Your task to perform on an android device: change alarm snooze length Image 0: 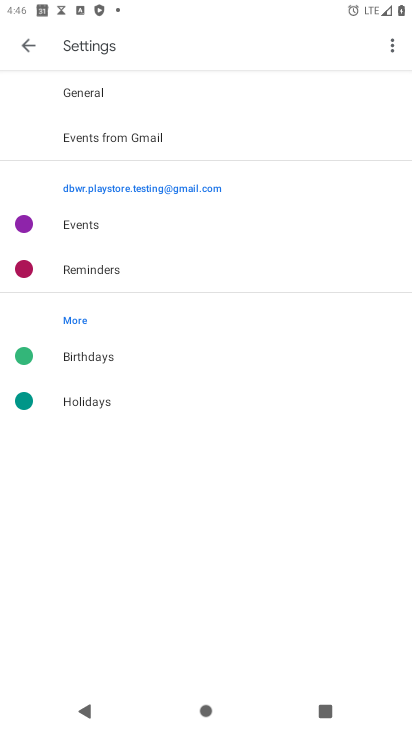
Step 0: press home button
Your task to perform on an android device: change alarm snooze length Image 1: 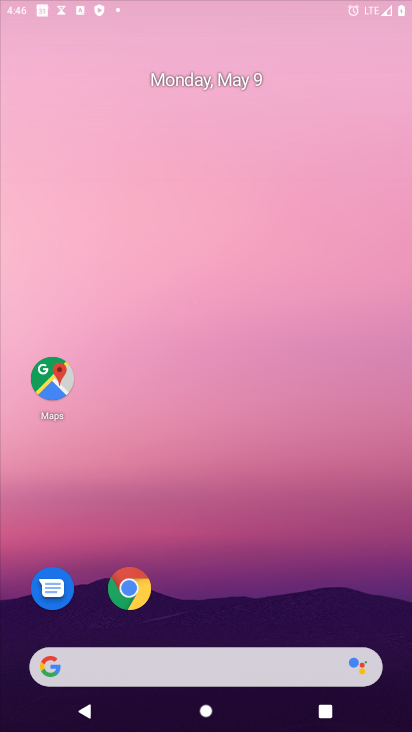
Step 1: drag from (272, 534) to (229, 96)
Your task to perform on an android device: change alarm snooze length Image 2: 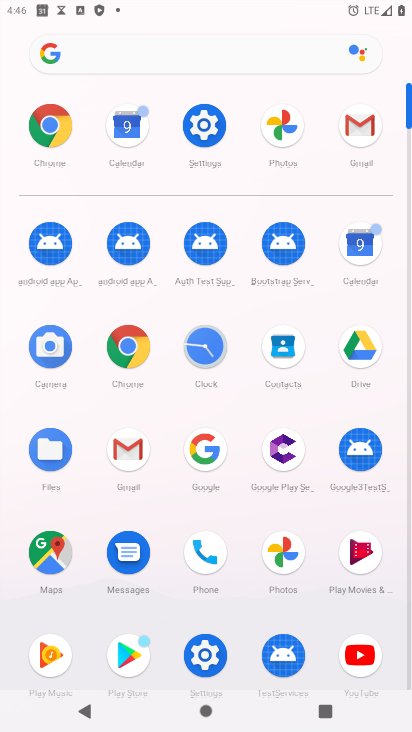
Step 2: click (358, 233)
Your task to perform on an android device: change alarm snooze length Image 3: 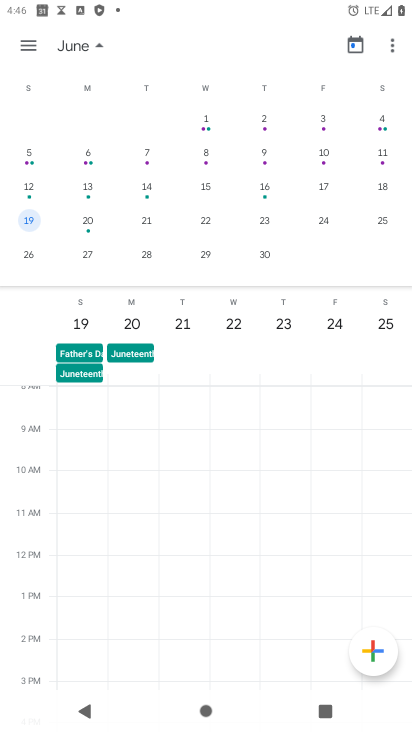
Step 3: press home button
Your task to perform on an android device: change alarm snooze length Image 4: 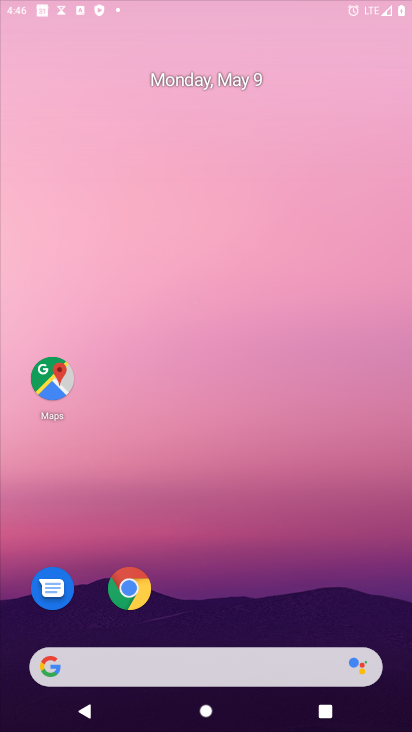
Step 4: drag from (261, 583) to (222, 220)
Your task to perform on an android device: change alarm snooze length Image 5: 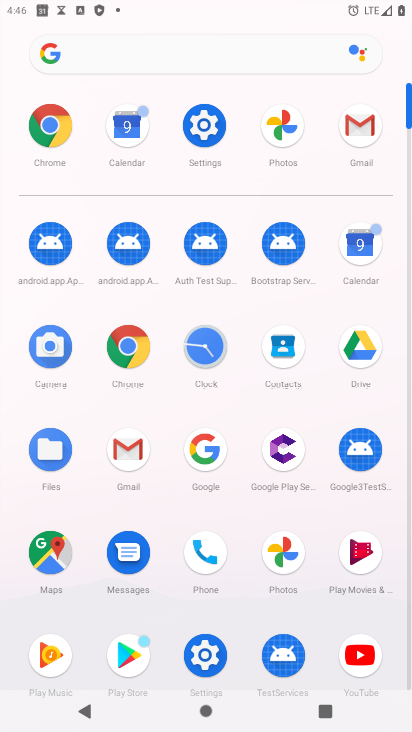
Step 5: click (205, 348)
Your task to perform on an android device: change alarm snooze length Image 6: 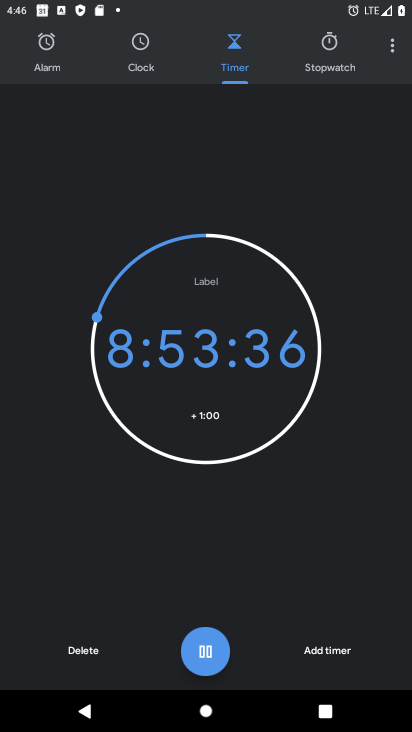
Step 6: click (385, 44)
Your task to perform on an android device: change alarm snooze length Image 7: 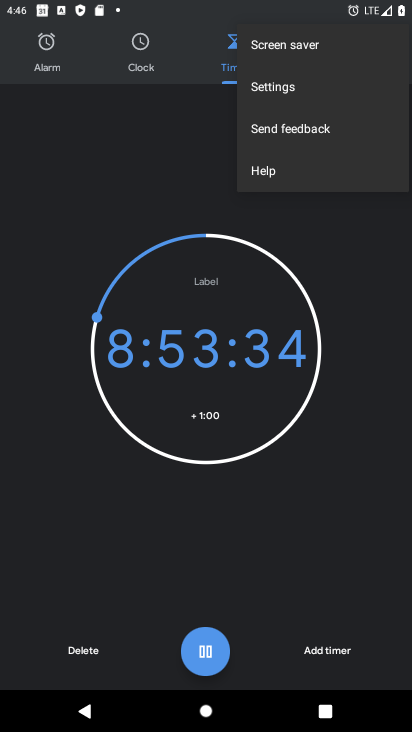
Step 7: click (282, 88)
Your task to perform on an android device: change alarm snooze length Image 8: 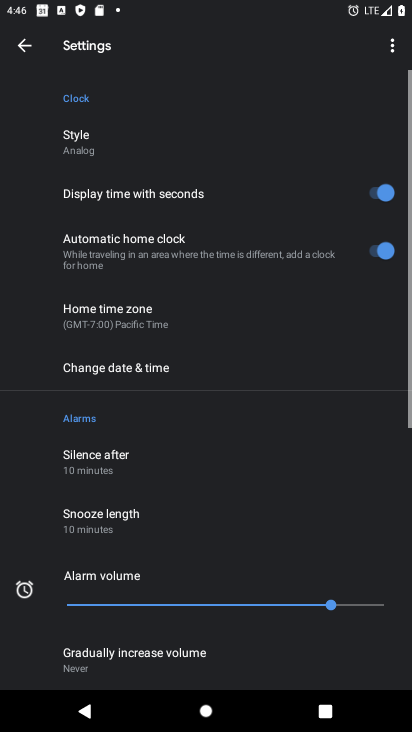
Step 8: drag from (179, 432) to (185, 78)
Your task to perform on an android device: change alarm snooze length Image 9: 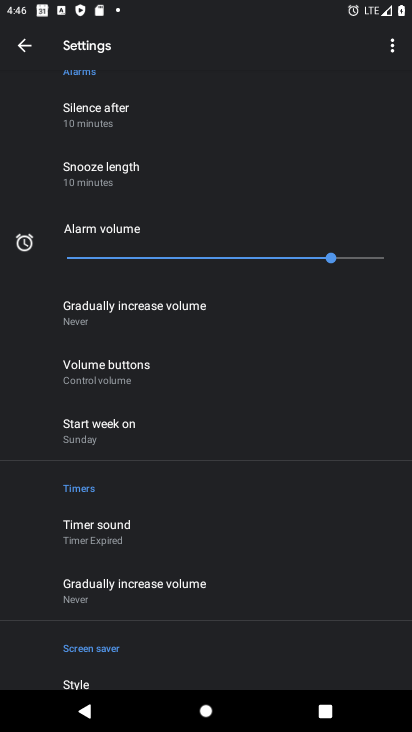
Step 9: click (139, 187)
Your task to perform on an android device: change alarm snooze length Image 10: 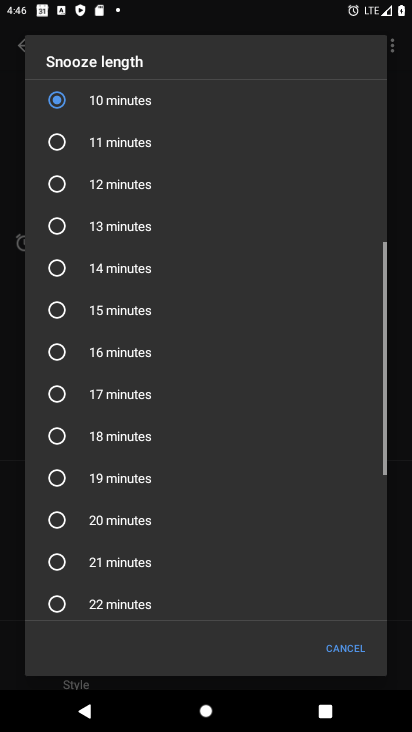
Step 10: click (135, 396)
Your task to perform on an android device: change alarm snooze length Image 11: 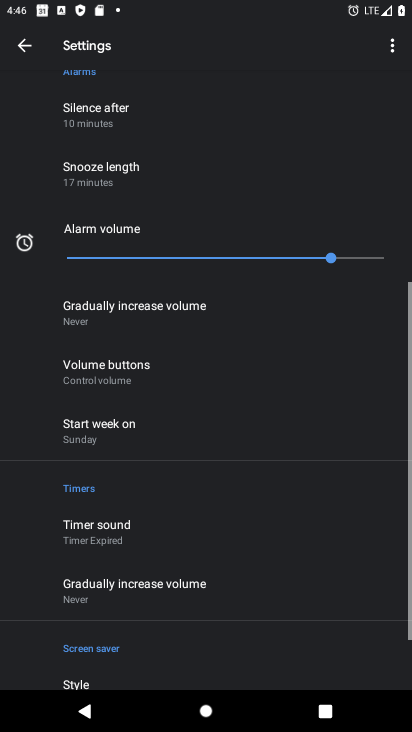
Step 11: task complete